Your task to perform on an android device: Open sound settings Image 0: 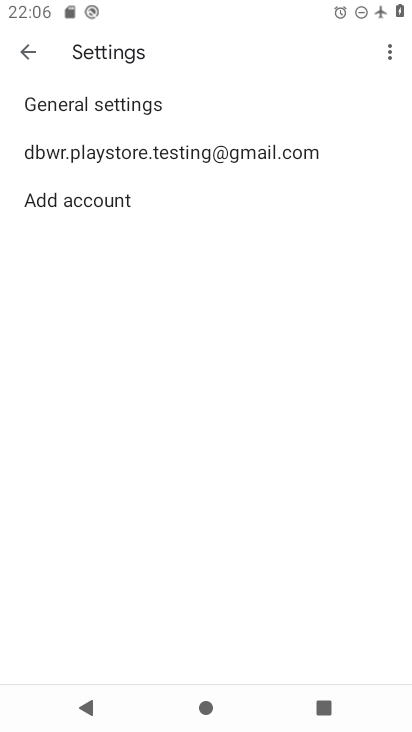
Step 0: press home button
Your task to perform on an android device: Open sound settings Image 1: 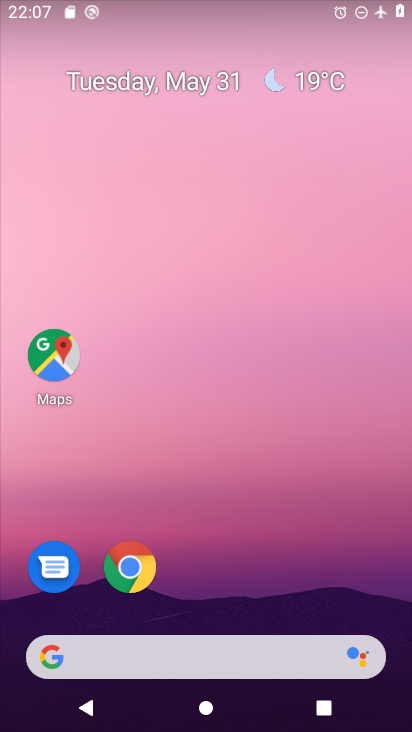
Step 1: drag from (271, 639) to (324, 210)
Your task to perform on an android device: Open sound settings Image 2: 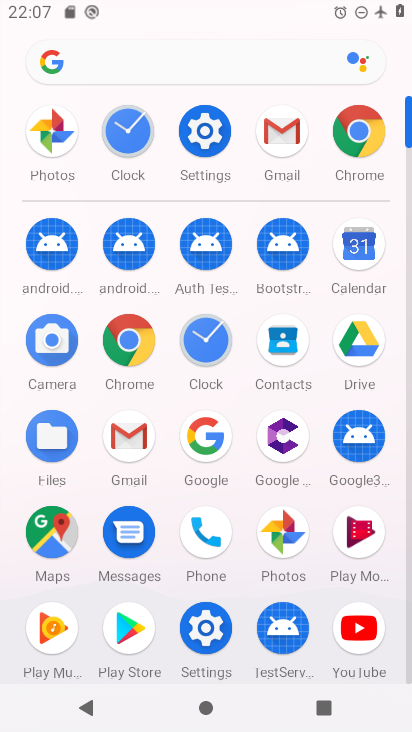
Step 2: click (205, 144)
Your task to perform on an android device: Open sound settings Image 3: 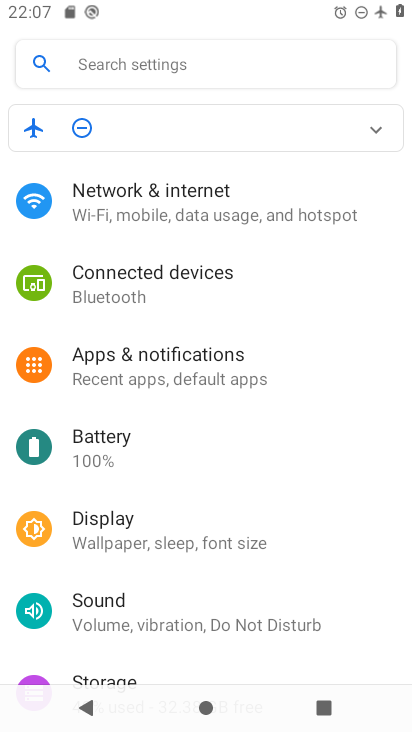
Step 3: click (113, 607)
Your task to perform on an android device: Open sound settings Image 4: 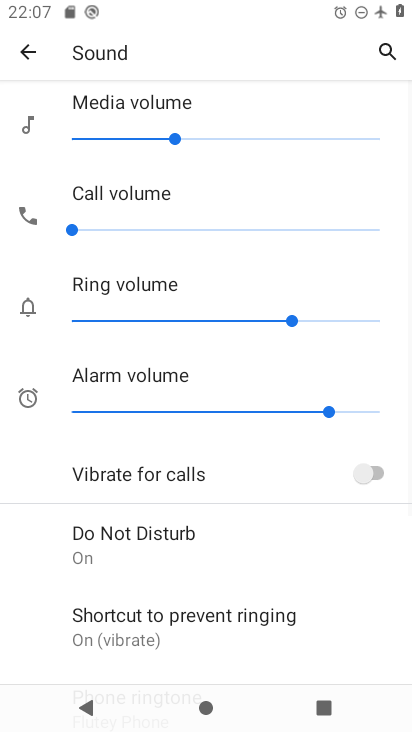
Step 4: task complete